Your task to perform on an android device: turn on showing notifications on the lock screen Image 0: 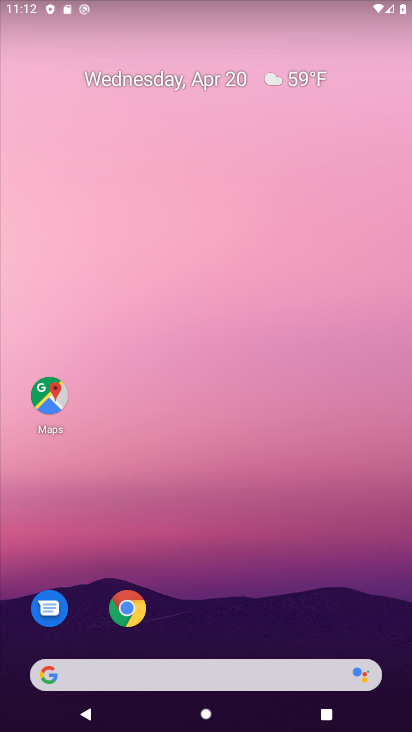
Step 0: drag from (239, 562) to (241, 204)
Your task to perform on an android device: turn on showing notifications on the lock screen Image 1: 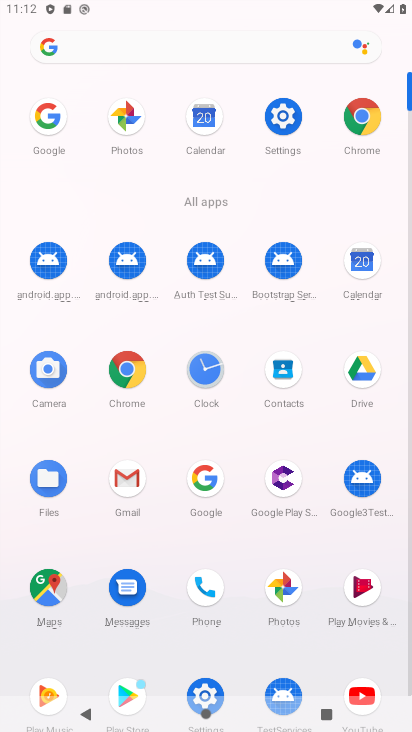
Step 1: click (284, 114)
Your task to perform on an android device: turn on showing notifications on the lock screen Image 2: 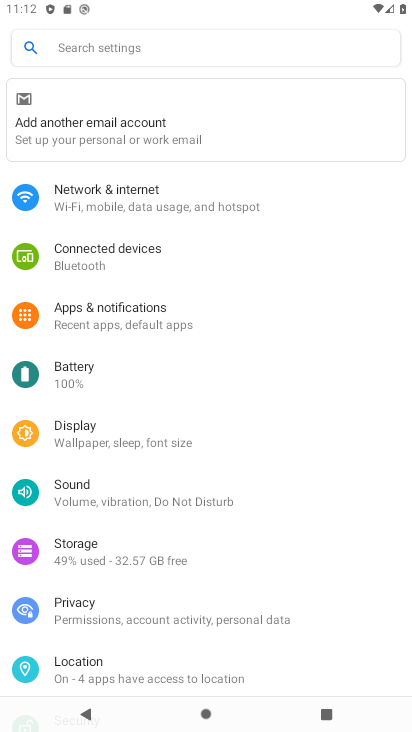
Step 2: click (120, 317)
Your task to perform on an android device: turn on showing notifications on the lock screen Image 3: 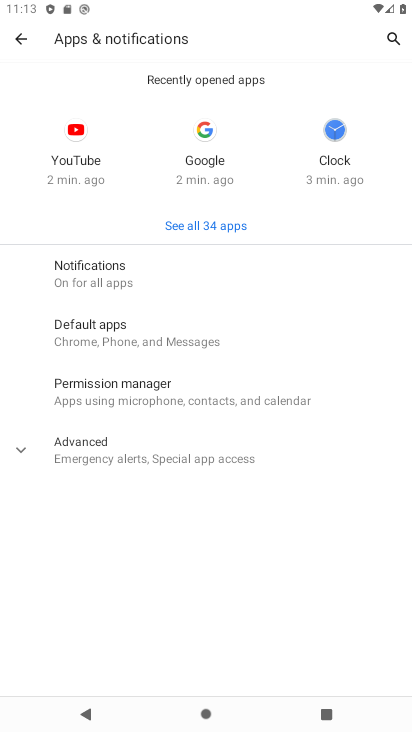
Step 3: click (99, 281)
Your task to perform on an android device: turn on showing notifications on the lock screen Image 4: 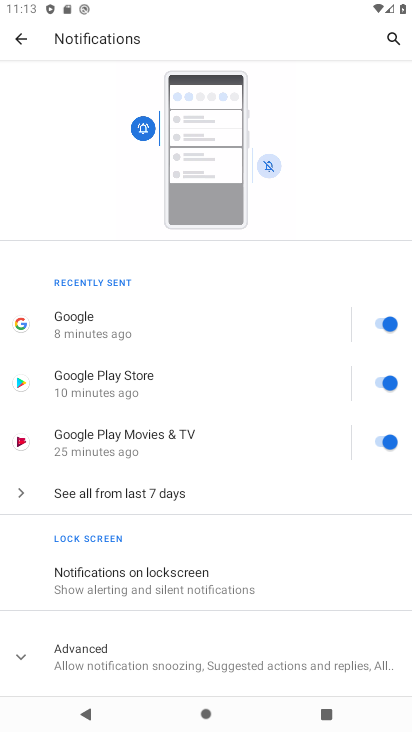
Step 4: click (173, 583)
Your task to perform on an android device: turn on showing notifications on the lock screen Image 5: 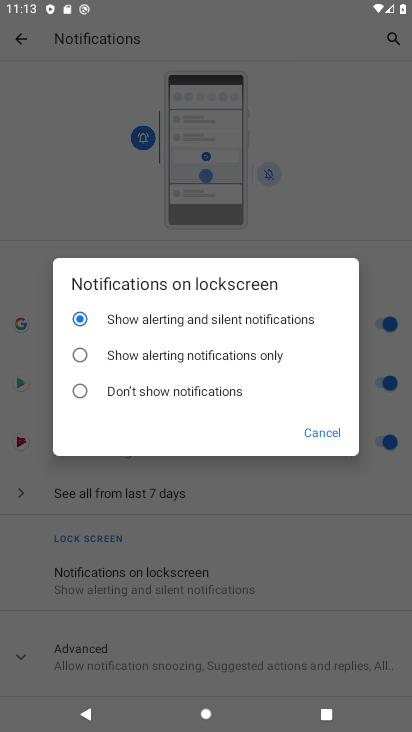
Step 5: task complete